Your task to perform on an android device: Go to Android settings Image 0: 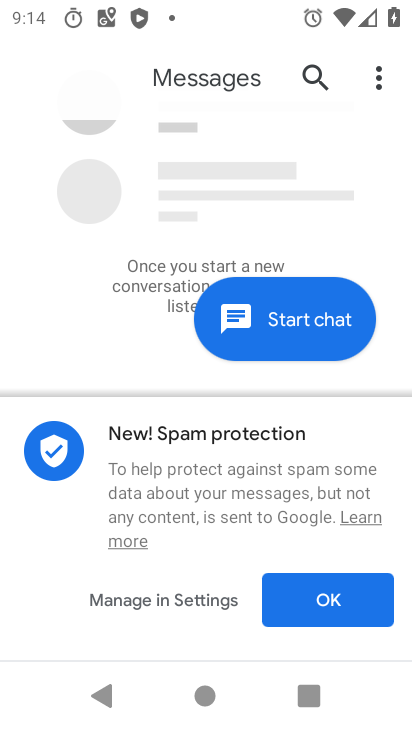
Step 0: press home button
Your task to perform on an android device: Go to Android settings Image 1: 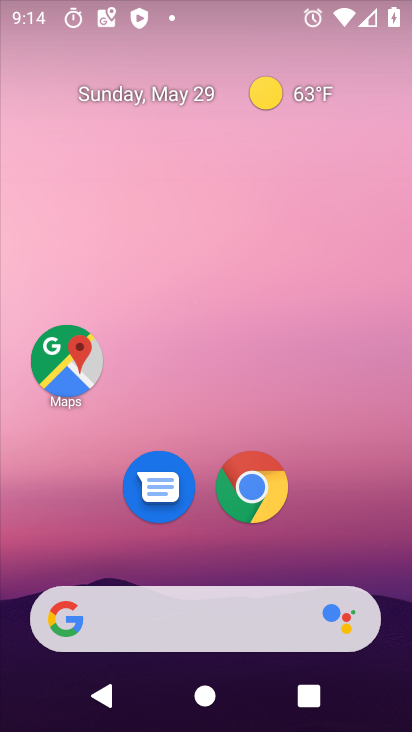
Step 1: drag from (263, 426) to (371, 20)
Your task to perform on an android device: Go to Android settings Image 2: 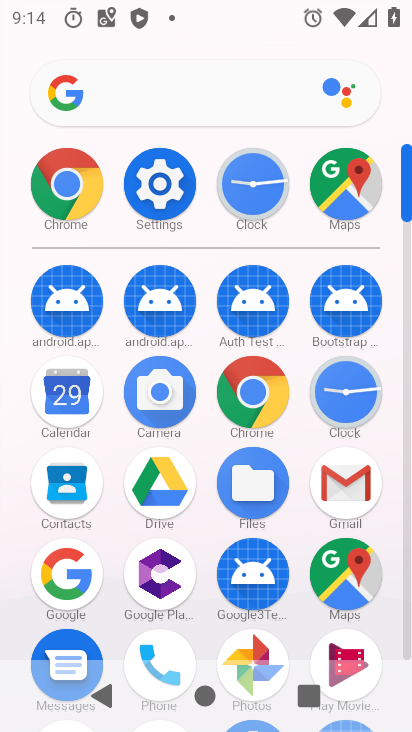
Step 2: drag from (263, 517) to (318, 46)
Your task to perform on an android device: Go to Android settings Image 3: 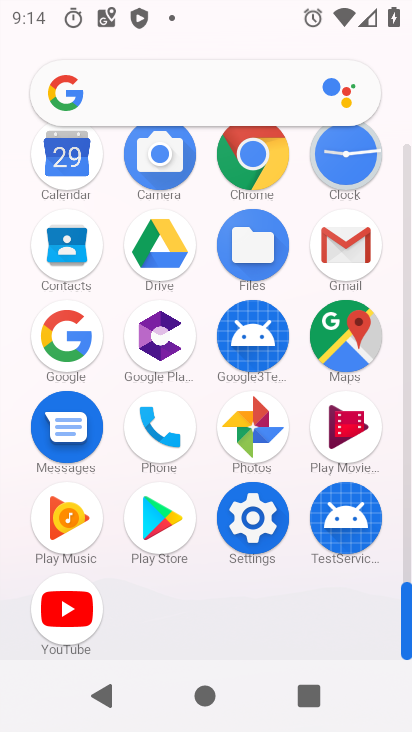
Step 3: click (247, 529)
Your task to perform on an android device: Go to Android settings Image 4: 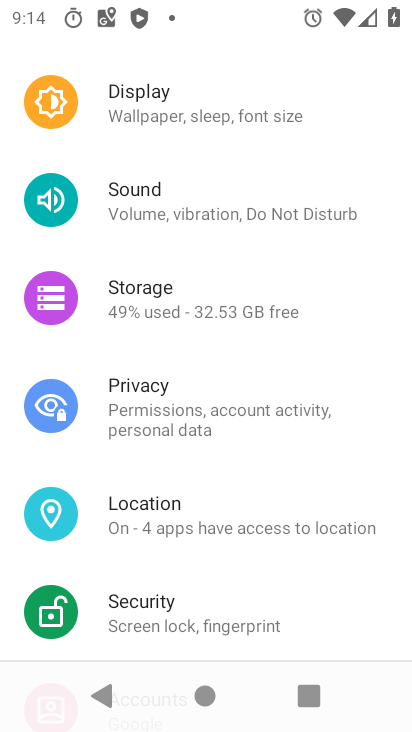
Step 4: drag from (275, 534) to (350, 78)
Your task to perform on an android device: Go to Android settings Image 5: 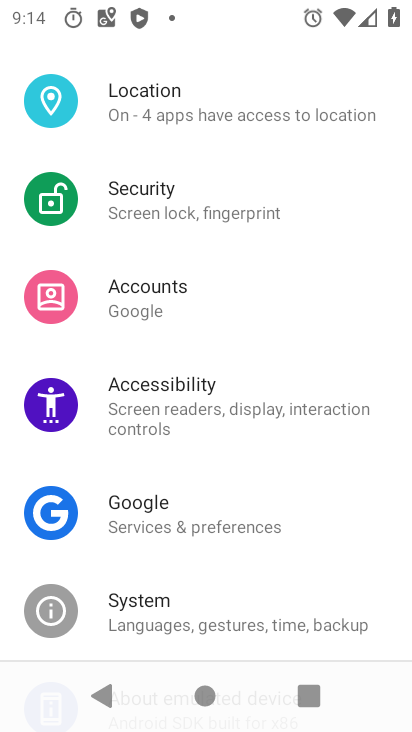
Step 5: drag from (257, 522) to (309, 0)
Your task to perform on an android device: Go to Android settings Image 6: 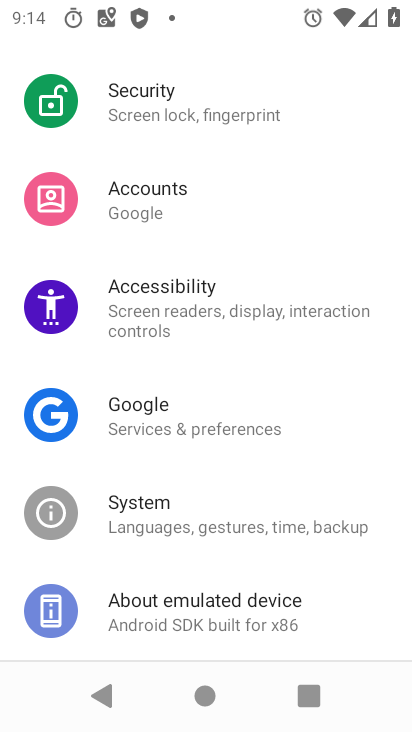
Step 6: click (271, 613)
Your task to perform on an android device: Go to Android settings Image 7: 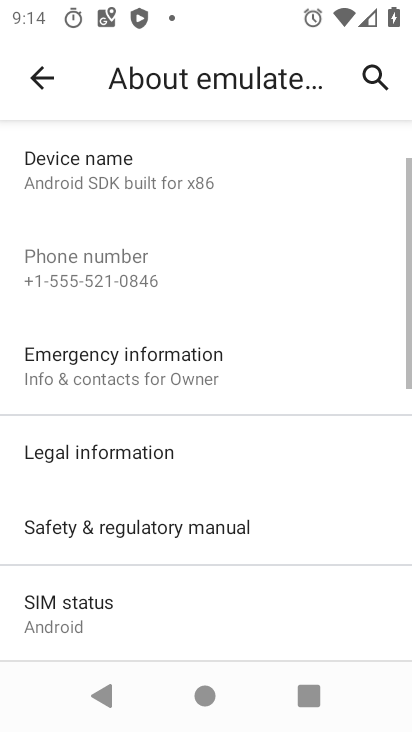
Step 7: drag from (259, 547) to (296, 206)
Your task to perform on an android device: Go to Android settings Image 8: 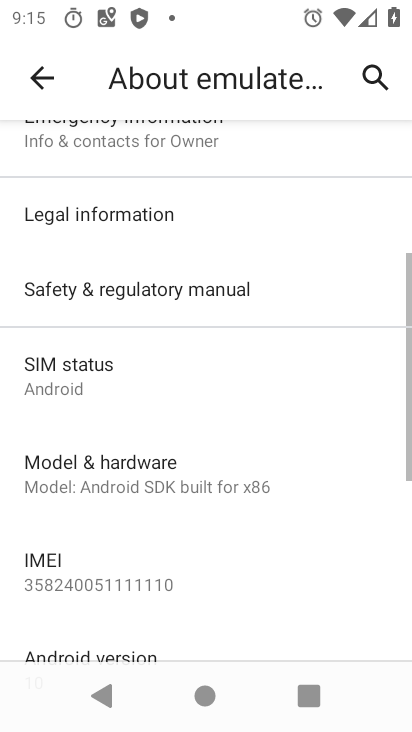
Step 8: drag from (199, 540) to (246, 218)
Your task to perform on an android device: Go to Android settings Image 9: 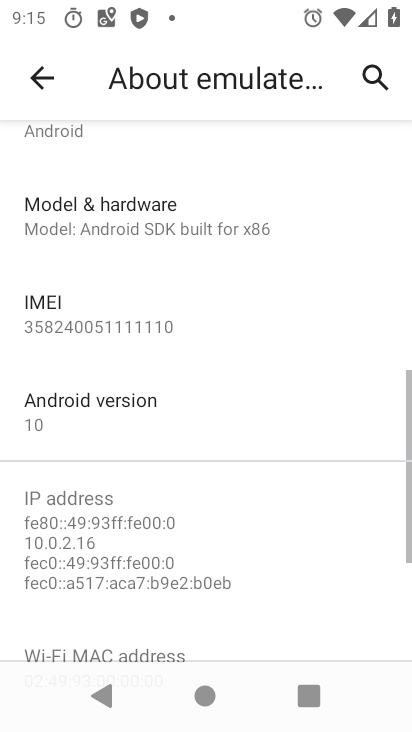
Step 9: click (130, 422)
Your task to perform on an android device: Go to Android settings Image 10: 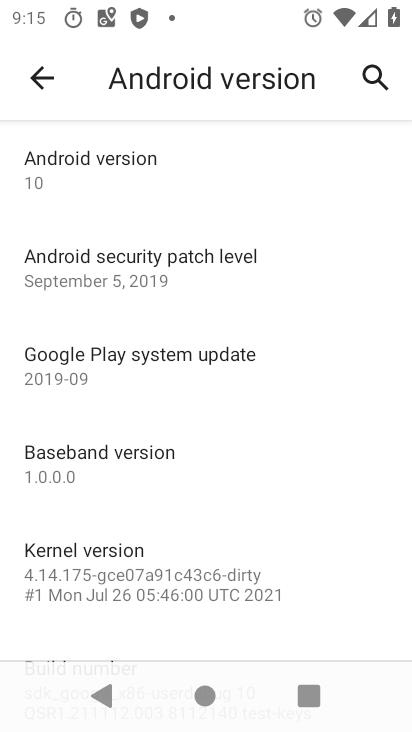
Step 10: click (195, 178)
Your task to perform on an android device: Go to Android settings Image 11: 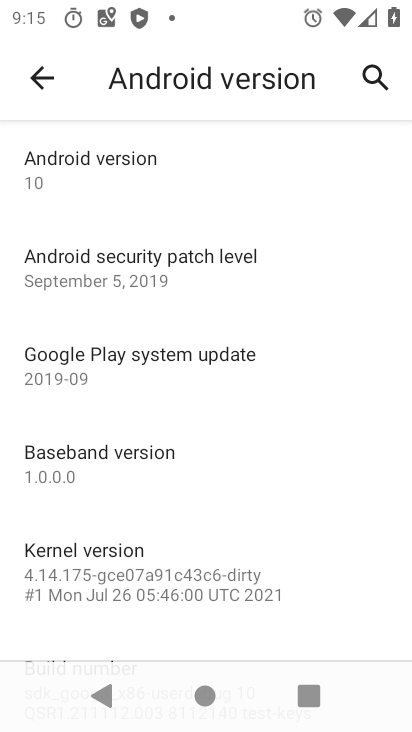
Step 11: task complete